Your task to perform on an android device: Add dell alienware to the cart on costco.com, then select checkout. Image 0: 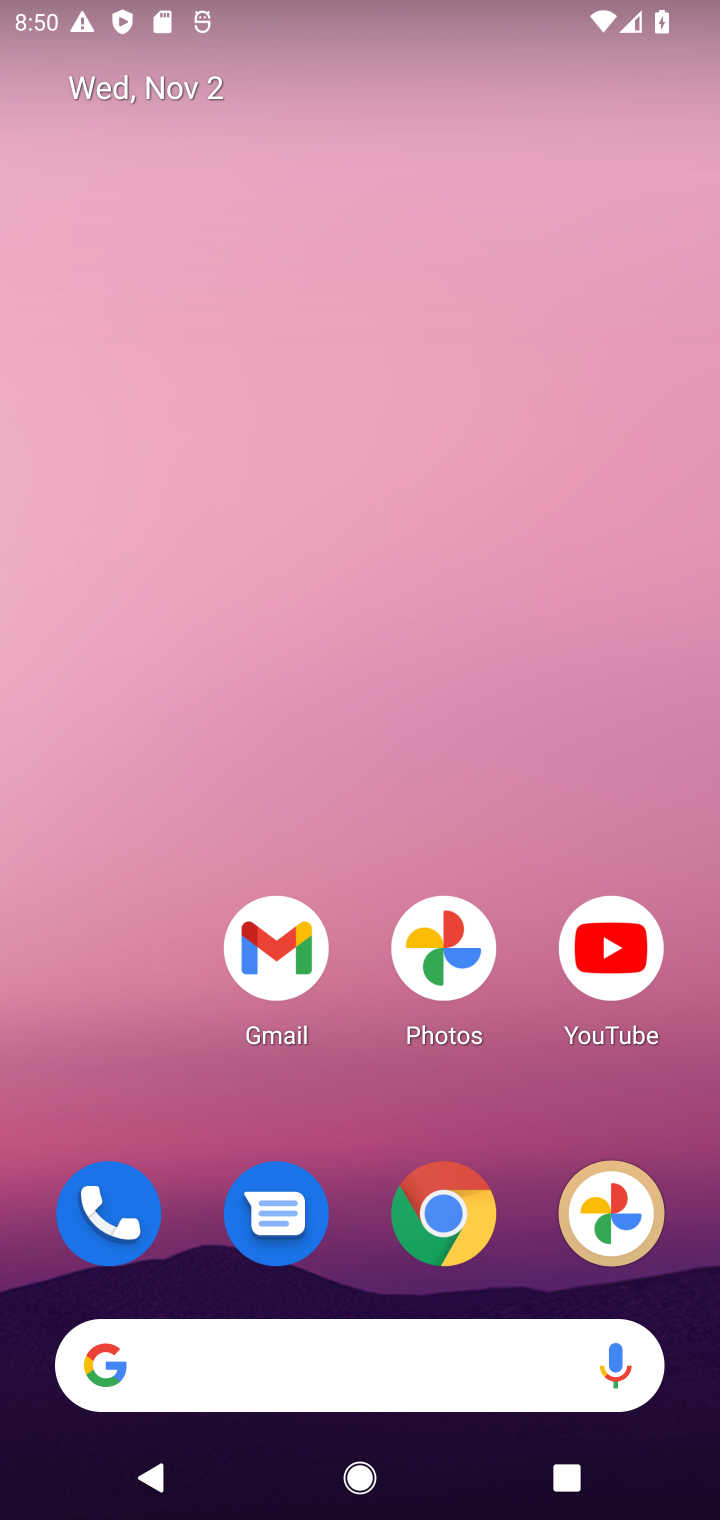
Step 0: click (435, 1231)
Your task to perform on an android device: Add dell alienware to the cart on costco.com, then select checkout. Image 1: 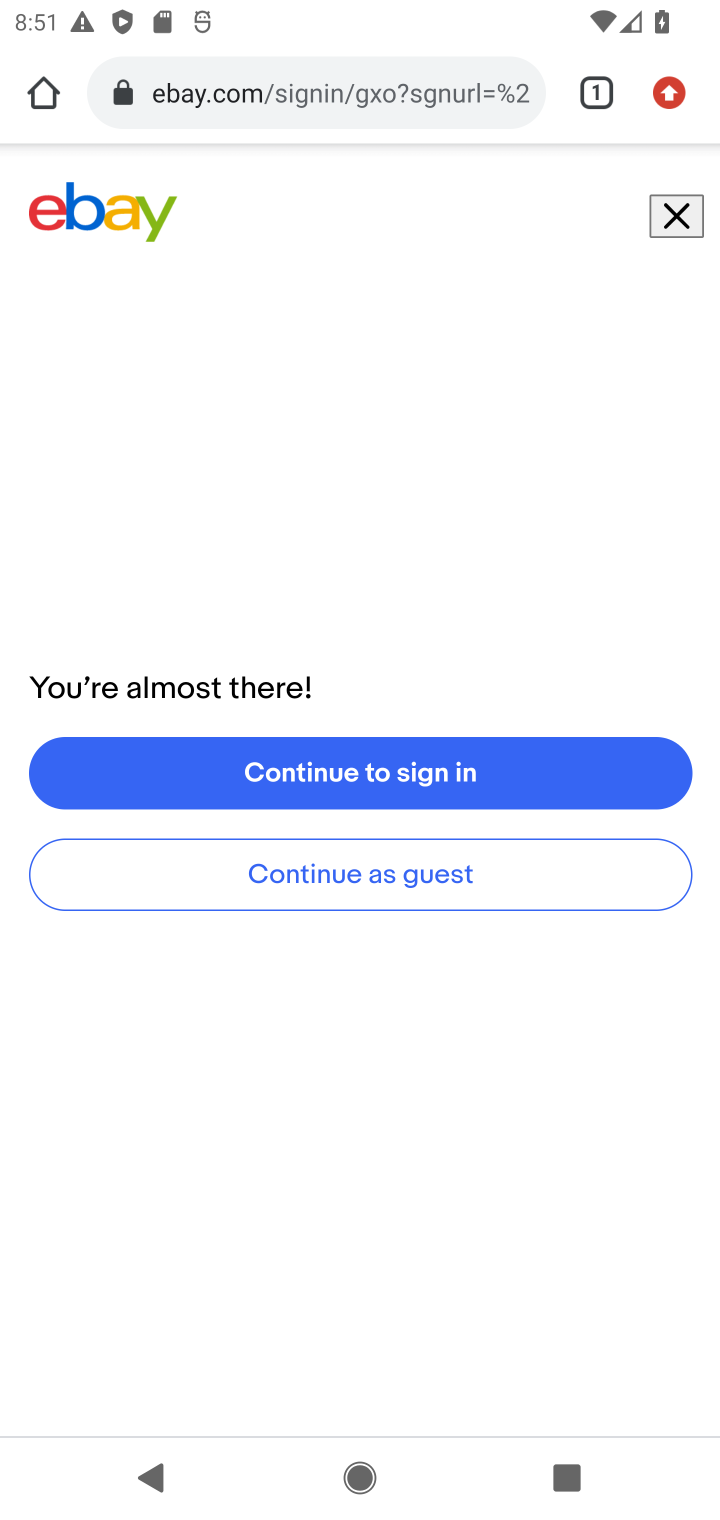
Step 1: click (265, 96)
Your task to perform on an android device: Add dell alienware to the cart on costco.com, then select checkout. Image 2: 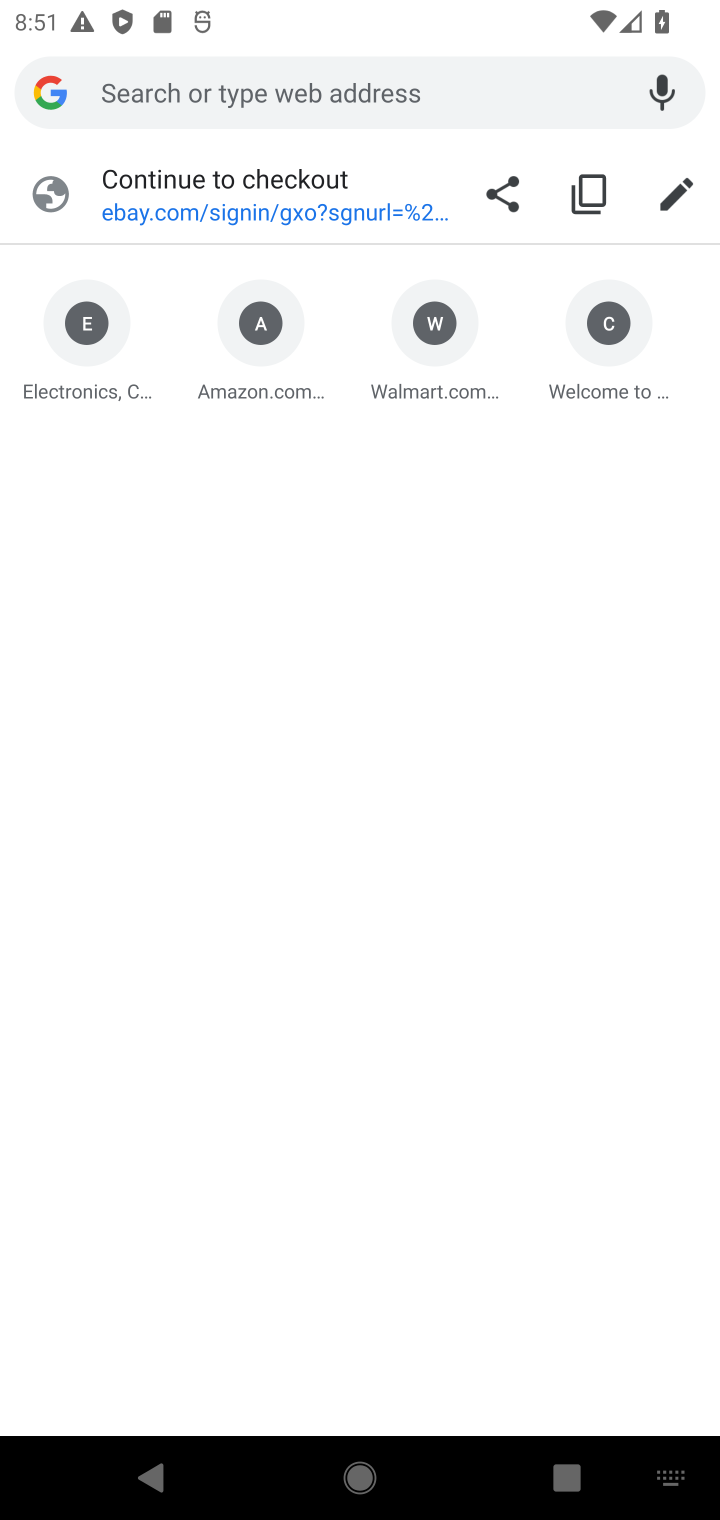
Step 2: type "costco.com"
Your task to perform on an android device: Add dell alienware to the cart on costco.com, then select checkout. Image 3: 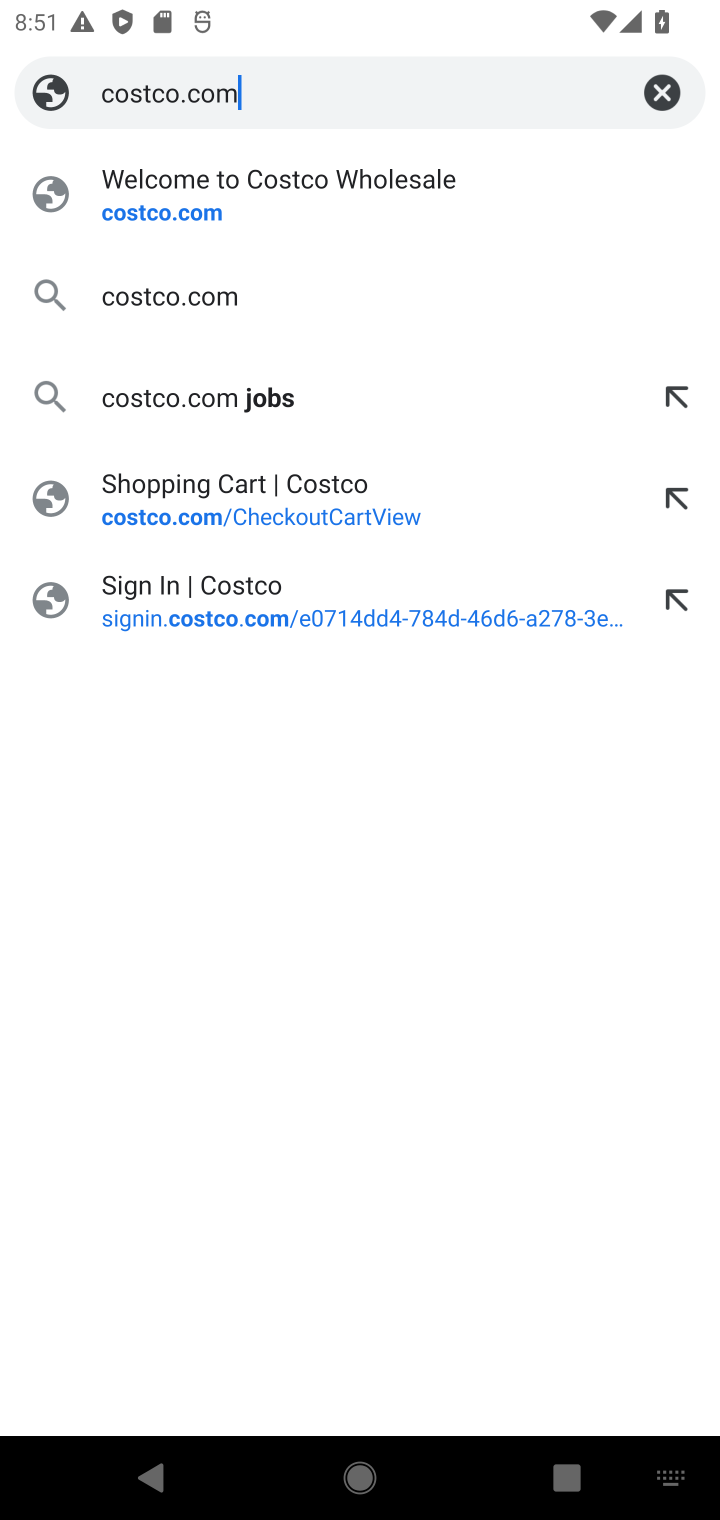
Step 3: click (144, 214)
Your task to perform on an android device: Add dell alienware to the cart on costco.com, then select checkout. Image 4: 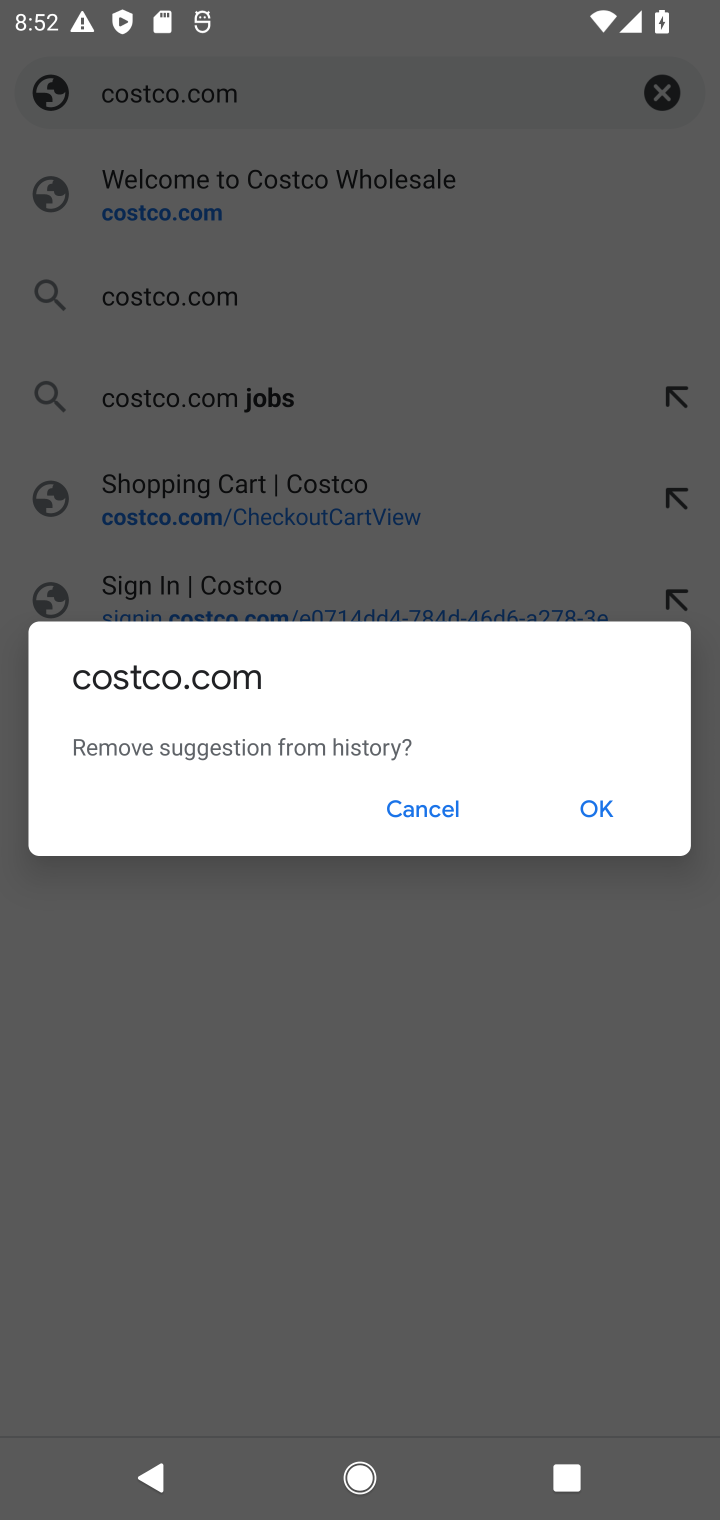
Step 4: click (421, 818)
Your task to perform on an android device: Add dell alienware to the cart on costco.com, then select checkout. Image 5: 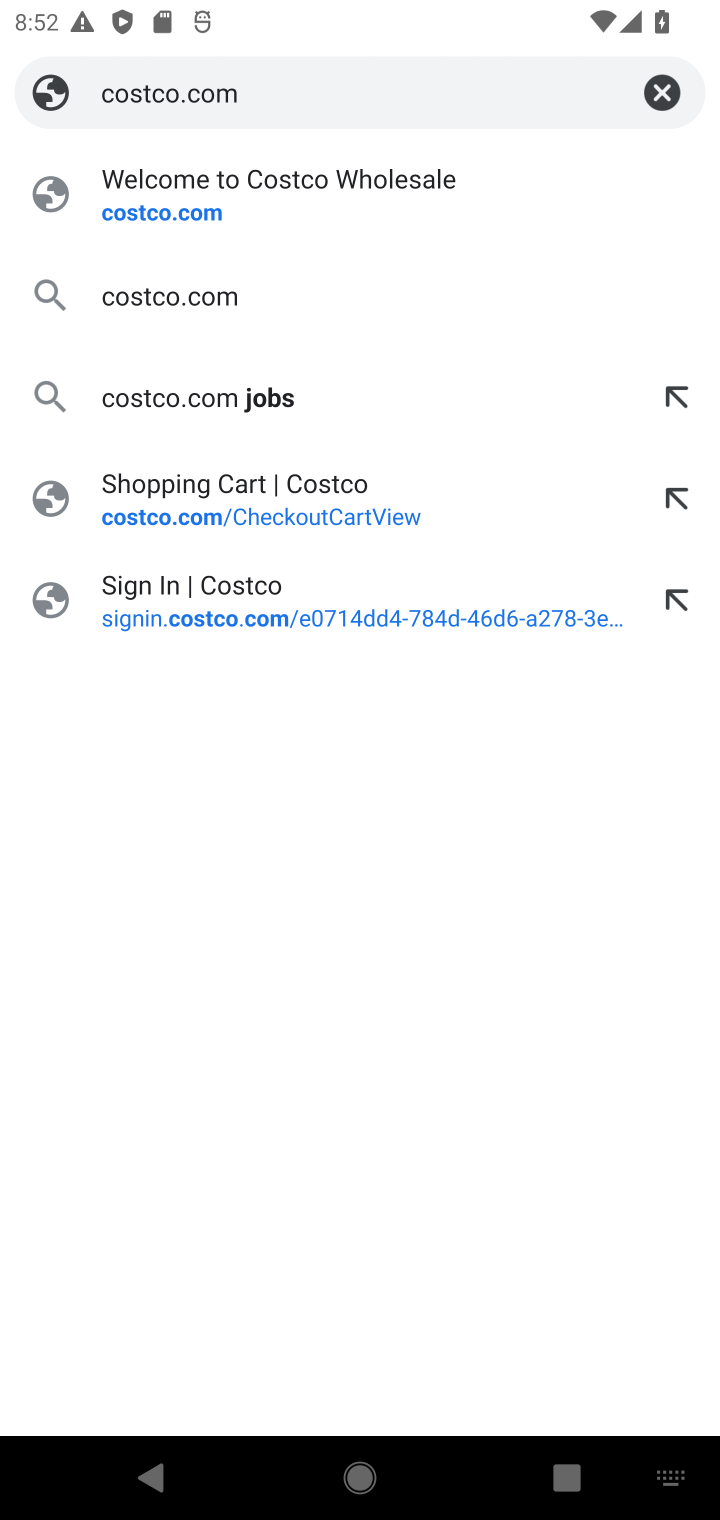
Step 5: click (188, 216)
Your task to perform on an android device: Add dell alienware to the cart on costco.com, then select checkout. Image 6: 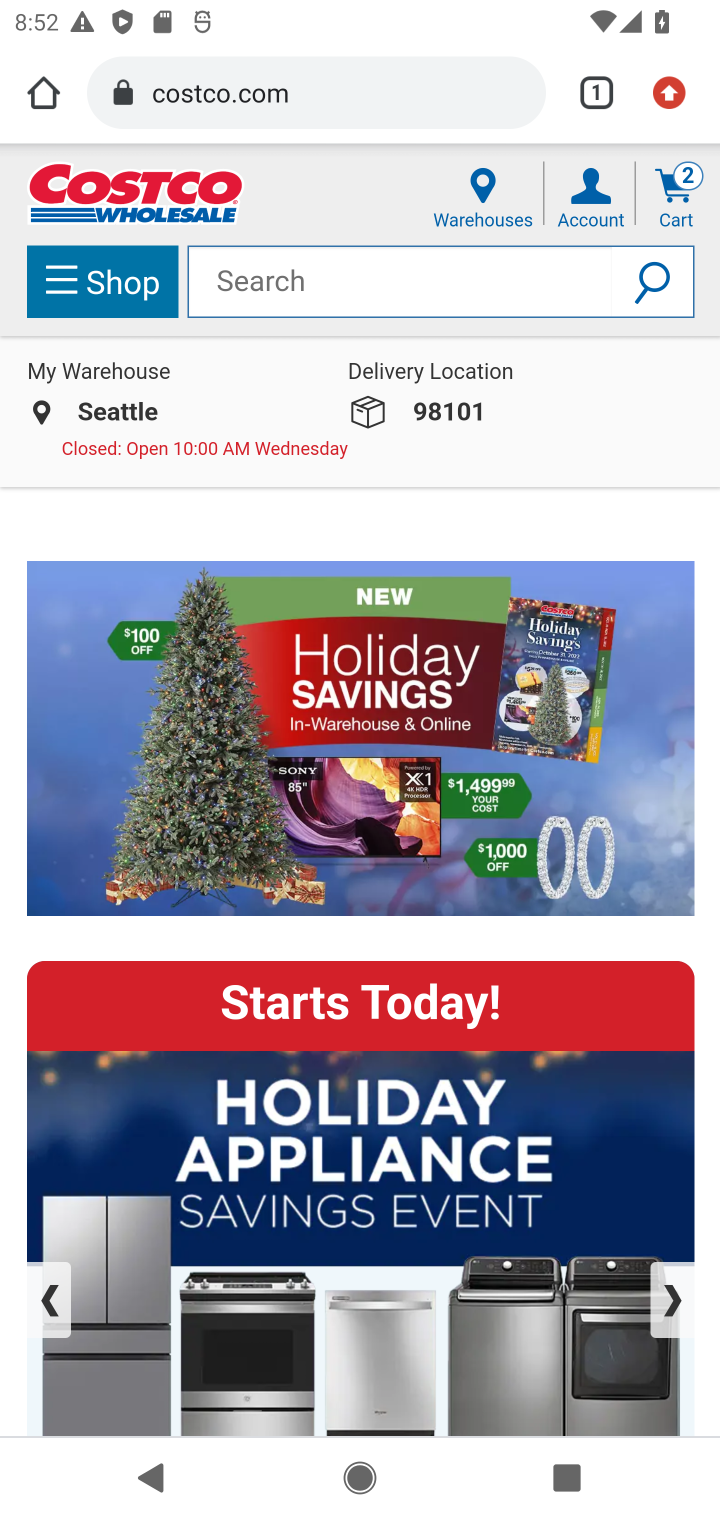
Step 6: click (274, 284)
Your task to perform on an android device: Add dell alienware to the cart on costco.com, then select checkout. Image 7: 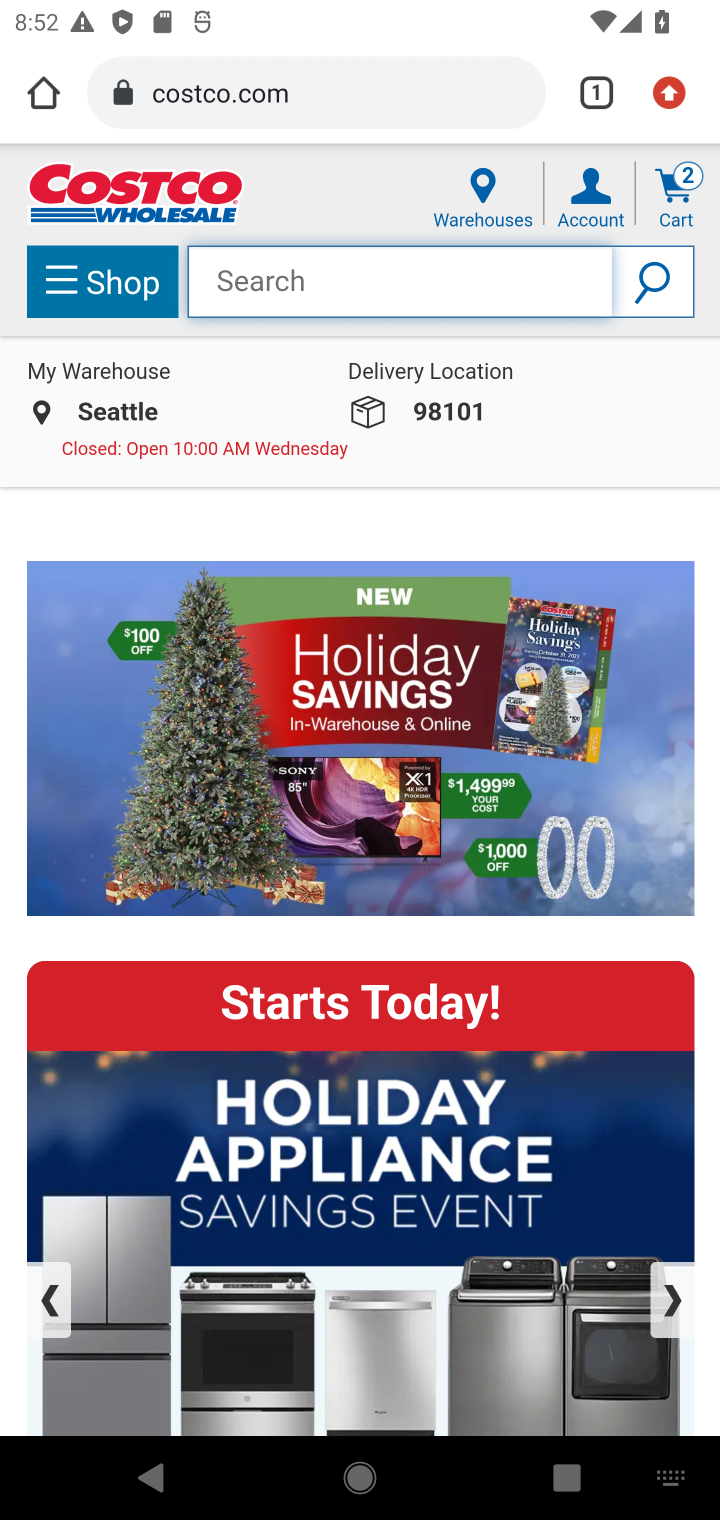
Step 7: type "dell alienware"
Your task to perform on an android device: Add dell alienware to the cart on costco.com, then select checkout. Image 8: 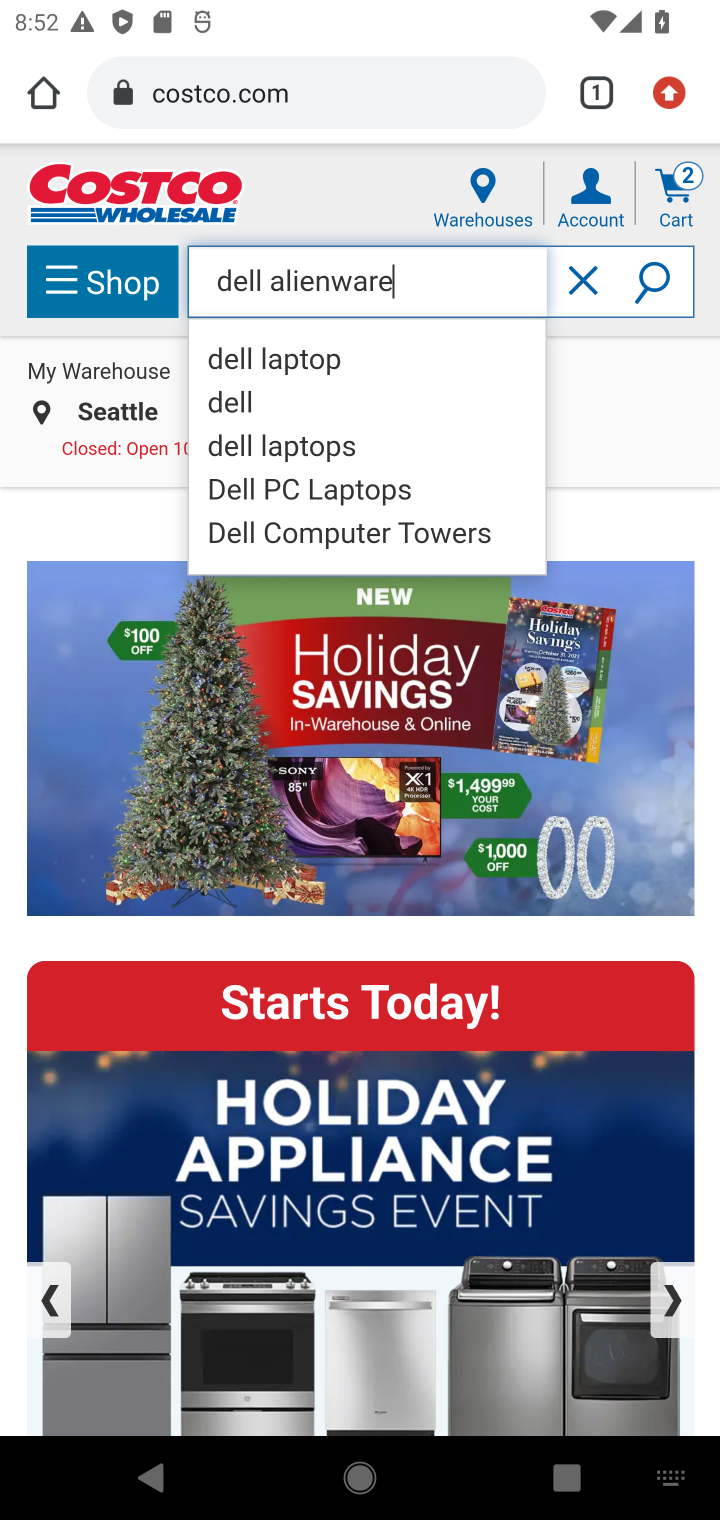
Step 8: click (648, 290)
Your task to perform on an android device: Add dell alienware to the cart on costco.com, then select checkout. Image 9: 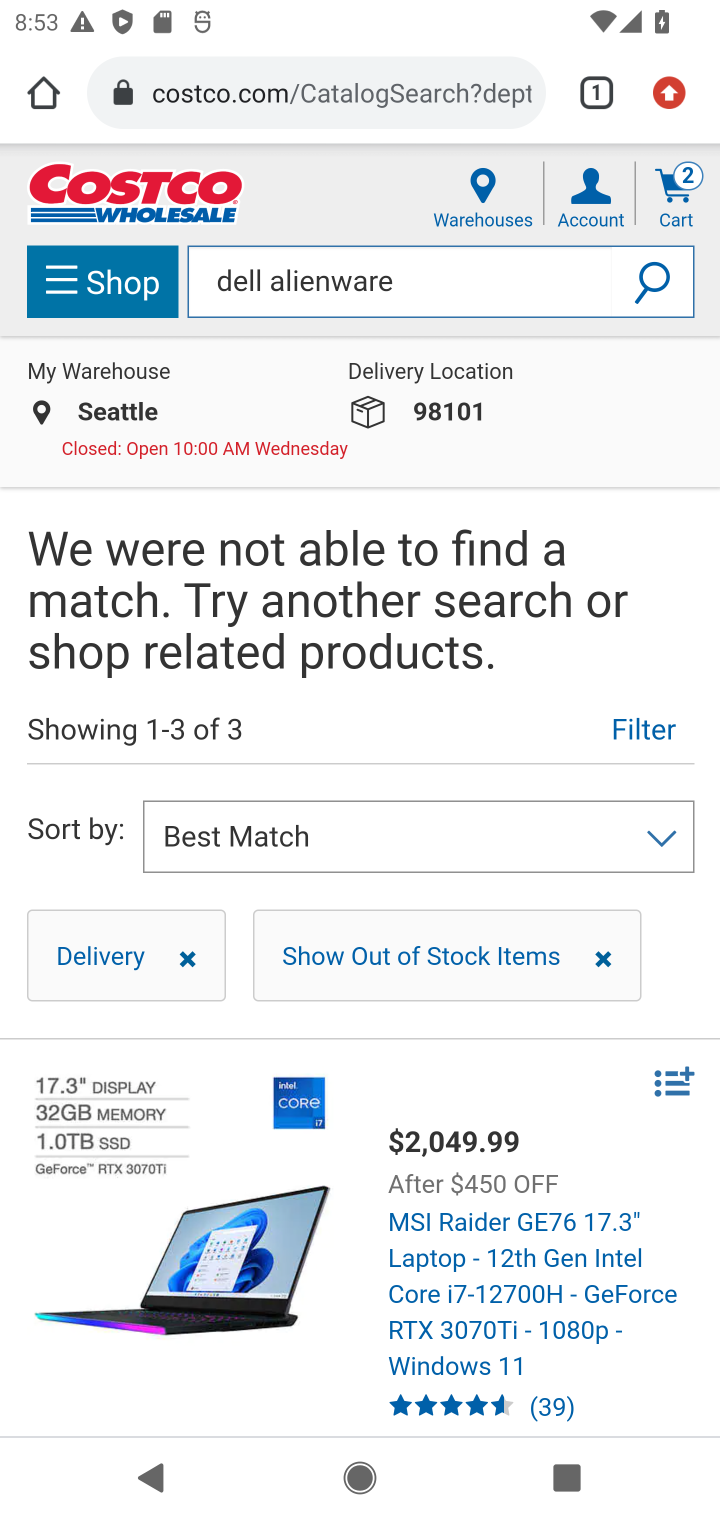
Step 9: task complete